Your task to perform on an android device: Go to display settings Image 0: 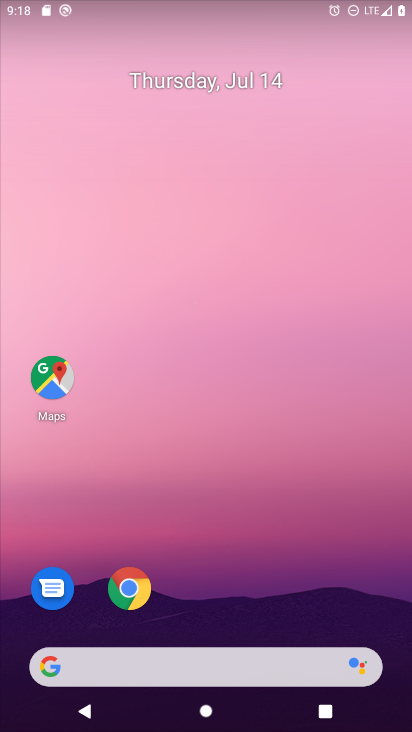
Step 0: drag from (311, 611) to (371, 150)
Your task to perform on an android device: Go to display settings Image 1: 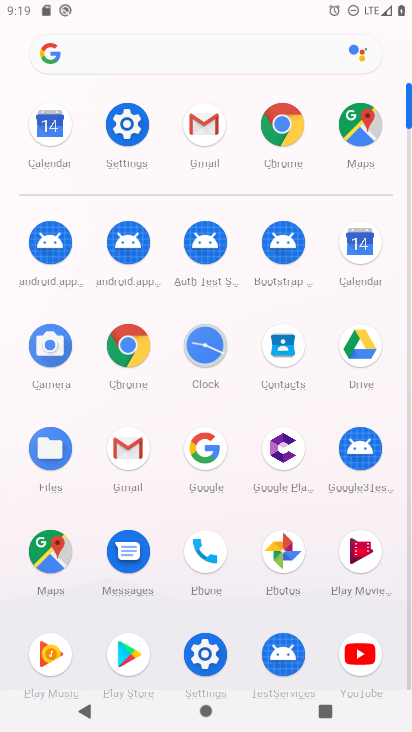
Step 1: click (109, 116)
Your task to perform on an android device: Go to display settings Image 2: 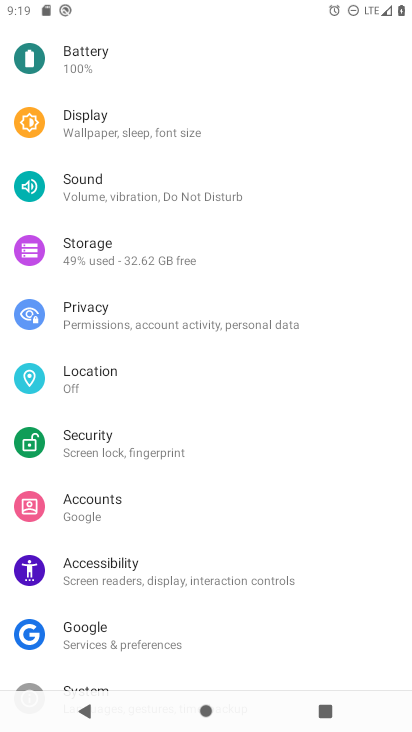
Step 2: drag from (131, 614) to (160, 352)
Your task to perform on an android device: Go to display settings Image 3: 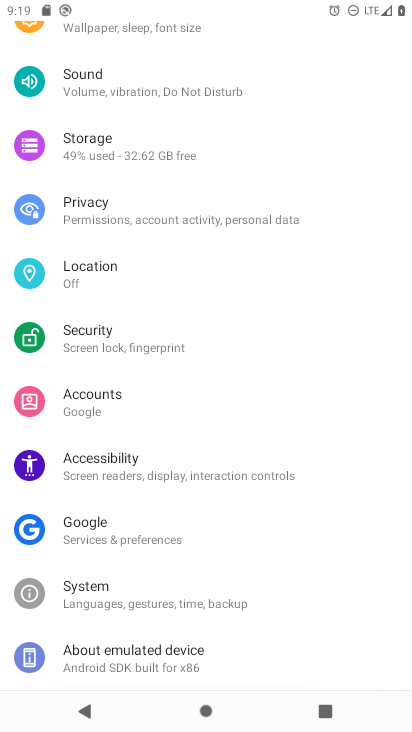
Step 3: drag from (160, 355) to (222, 643)
Your task to perform on an android device: Go to display settings Image 4: 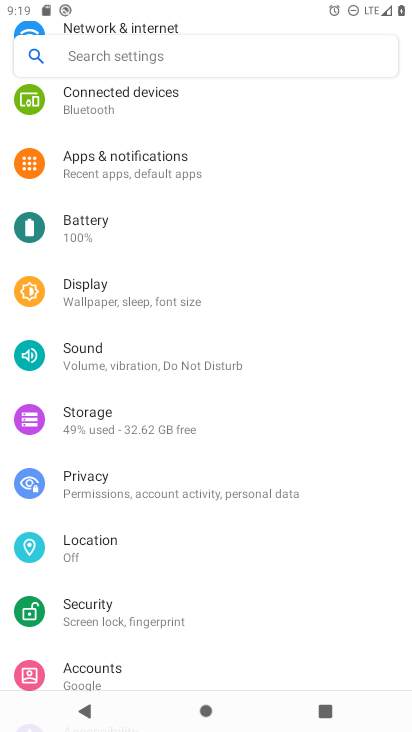
Step 4: click (117, 290)
Your task to perform on an android device: Go to display settings Image 5: 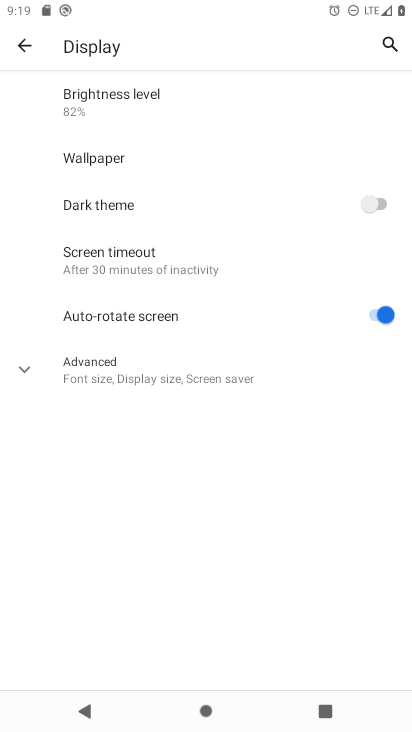
Step 5: task complete